Your task to perform on an android device: Empty the shopping cart on amazon.com. Add razer nari to the cart on amazon.com Image 0: 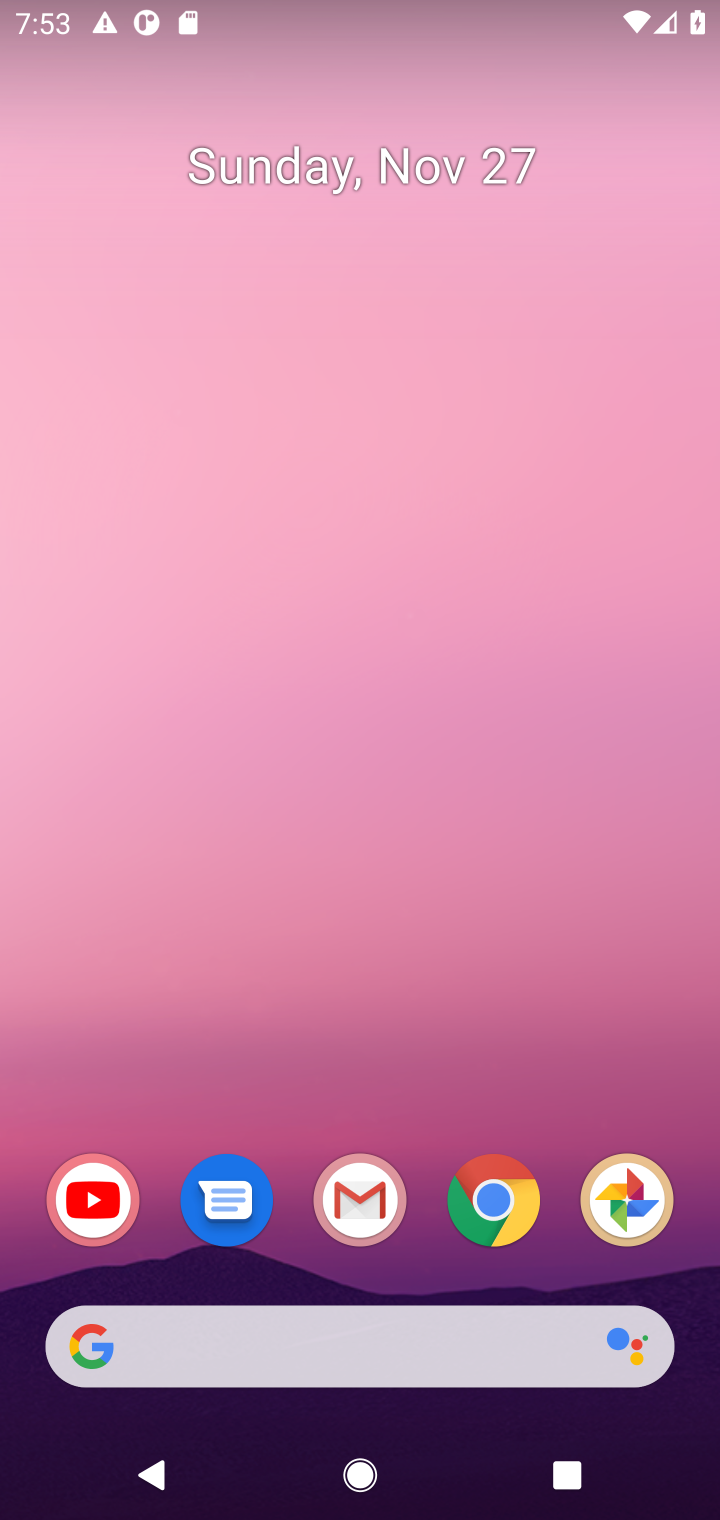
Step 0: click (500, 1222)
Your task to perform on an android device: Empty the shopping cart on amazon.com. Add razer nari to the cart on amazon.com Image 1: 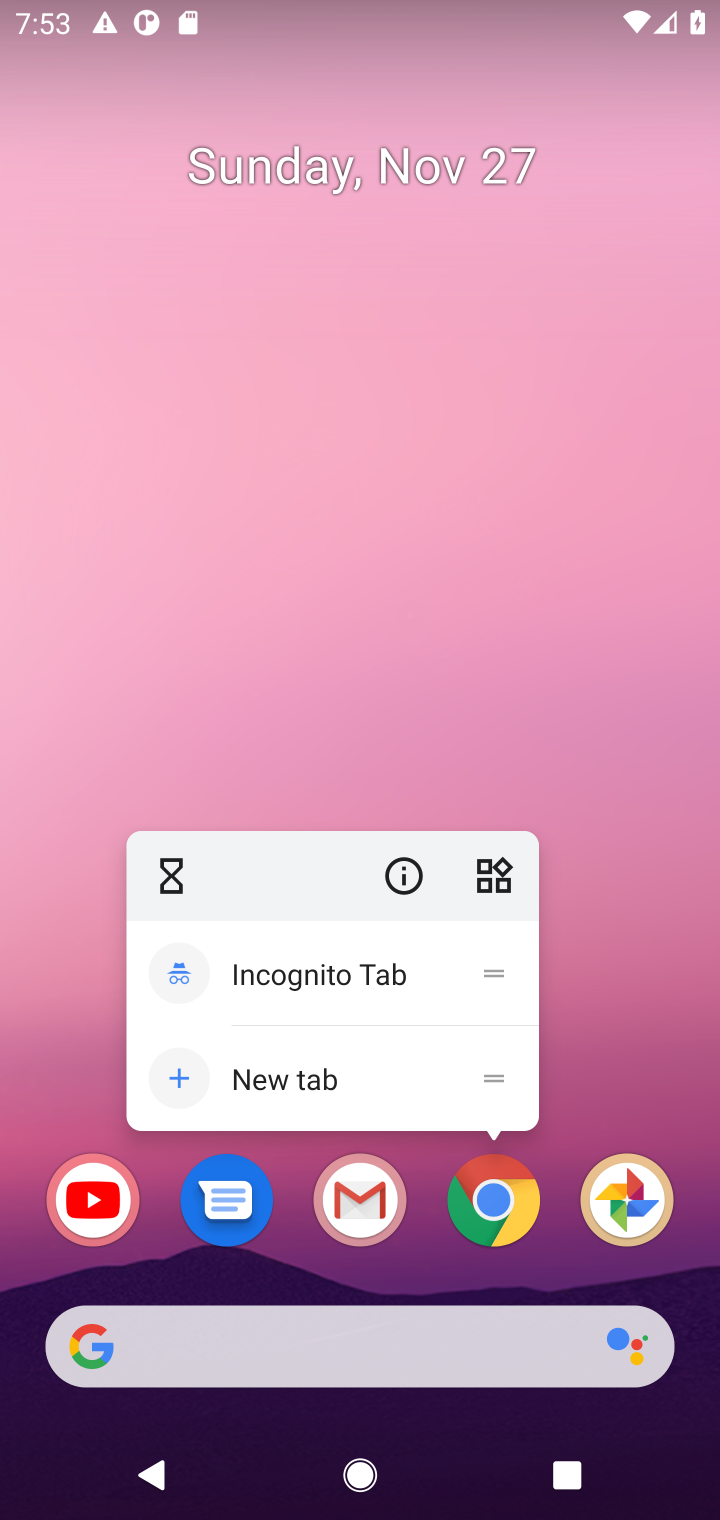
Step 1: click (499, 1205)
Your task to perform on an android device: Empty the shopping cart on amazon.com. Add razer nari to the cart on amazon.com Image 2: 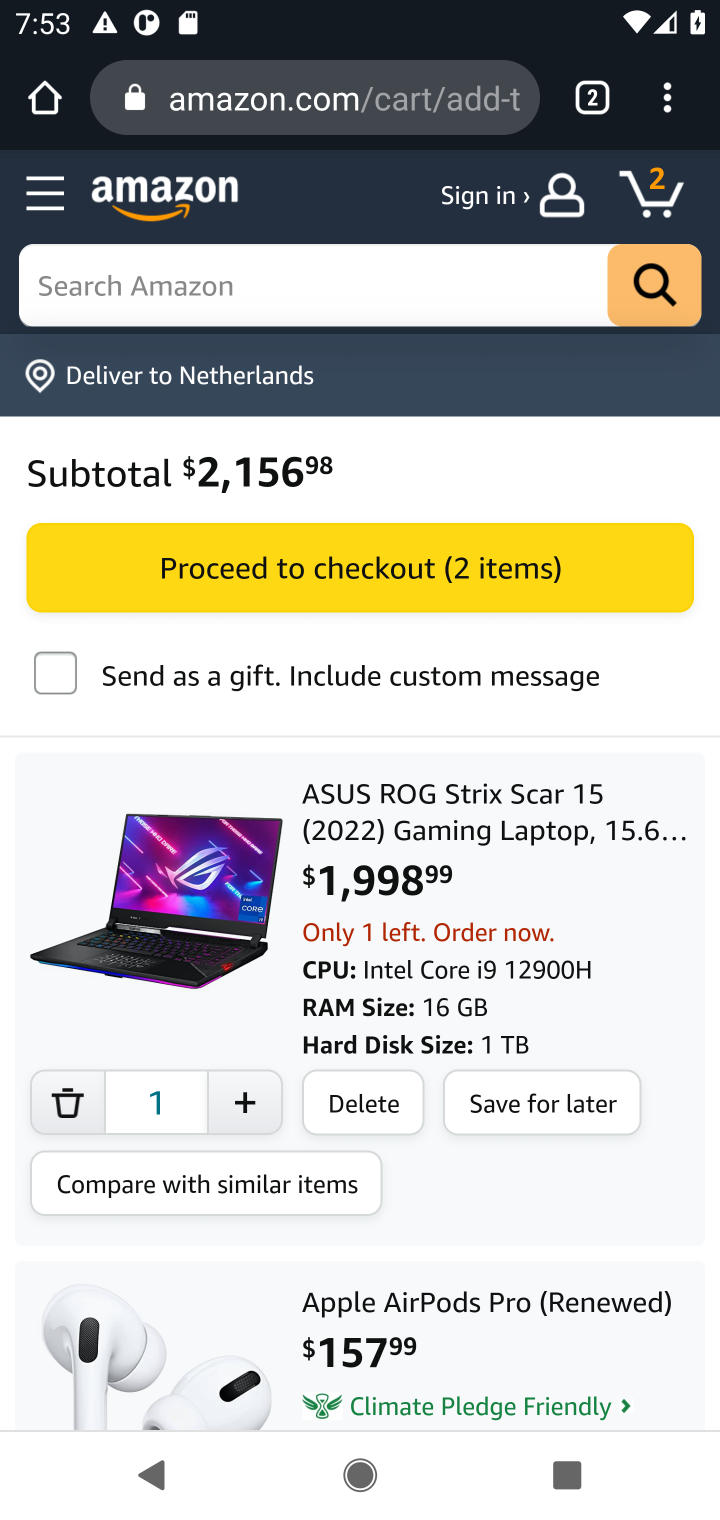
Step 2: click (340, 1091)
Your task to perform on an android device: Empty the shopping cart on amazon.com. Add razer nari to the cart on amazon.com Image 3: 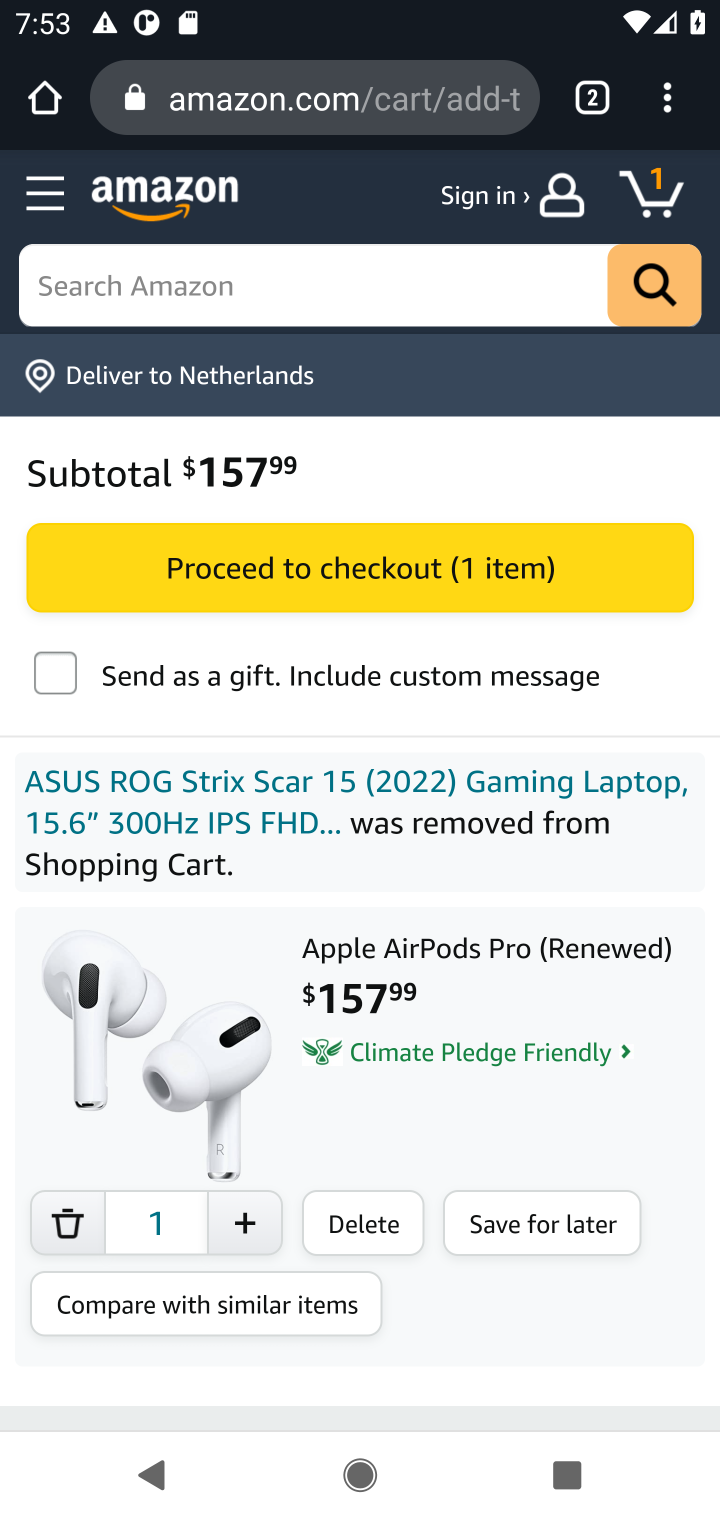
Step 3: click (345, 1225)
Your task to perform on an android device: Empty the shopping cart on amazon.com. Add razer nari to the cart on amazon.com Image 4: 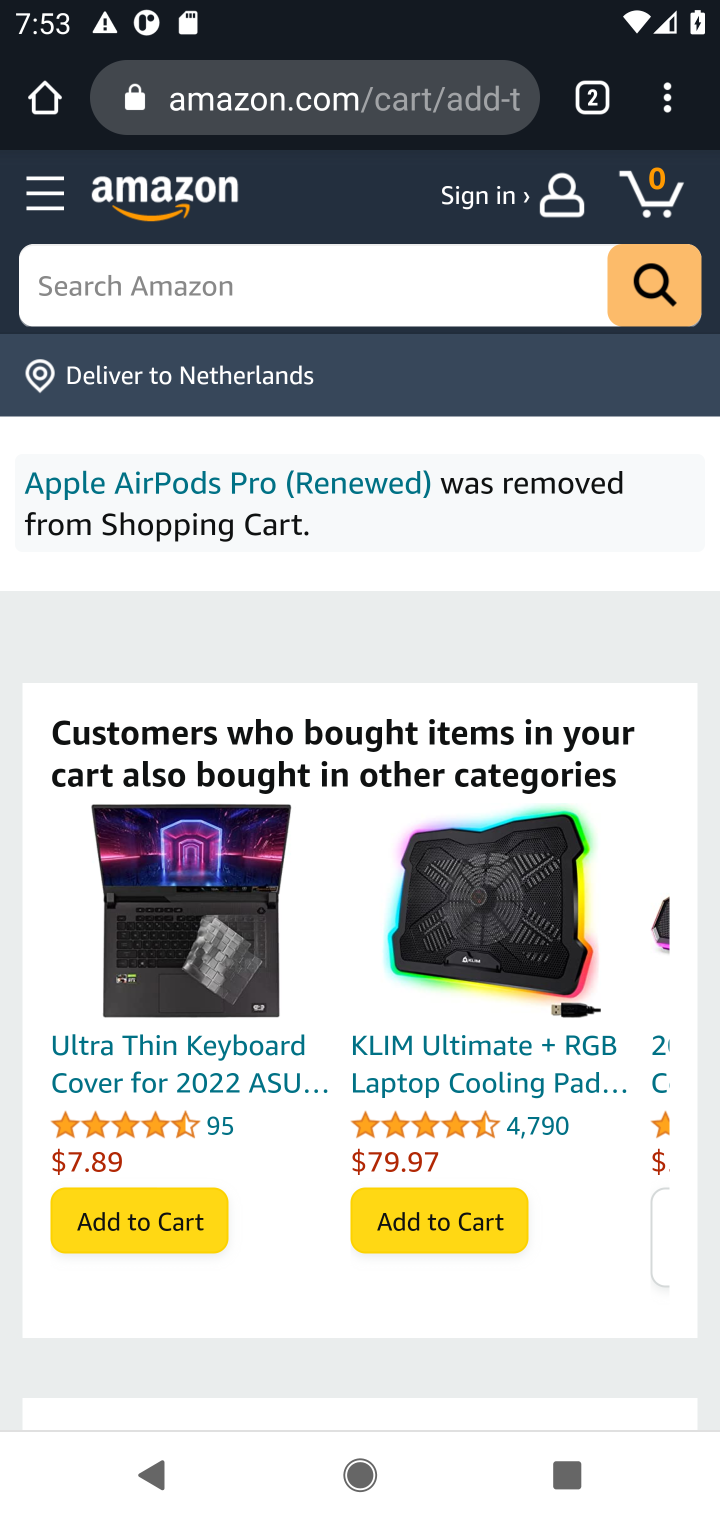
Step 4: click (219, 304)
Your task to perform on an android device: Empty the shopping cart on amazon.com. Add razer nari to the cart on amazon.com Image 5: 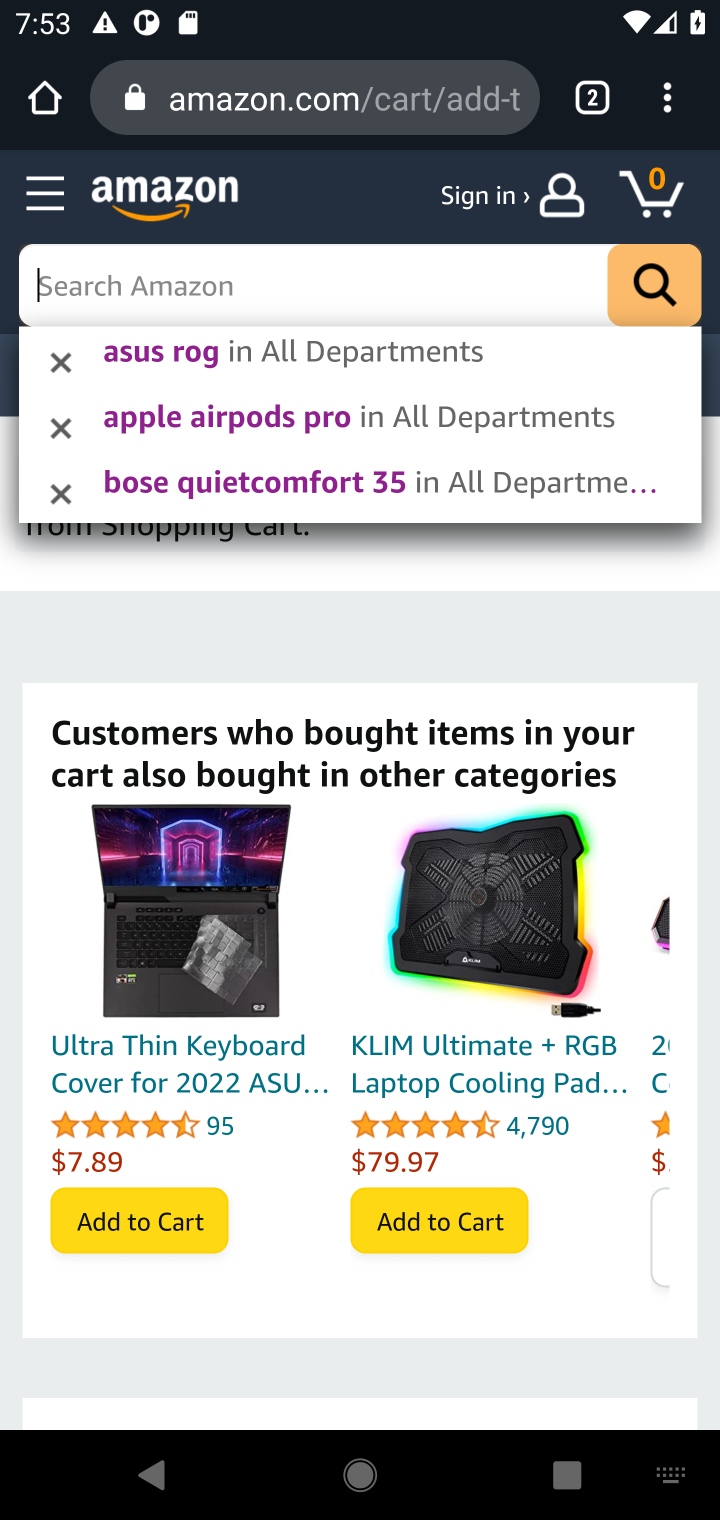
Step 5: type "razer nari"
Your task to perform on an android device: Empty the shopping cart on amazon.com. Add razer nari to the cart on amazon.com Image 6: 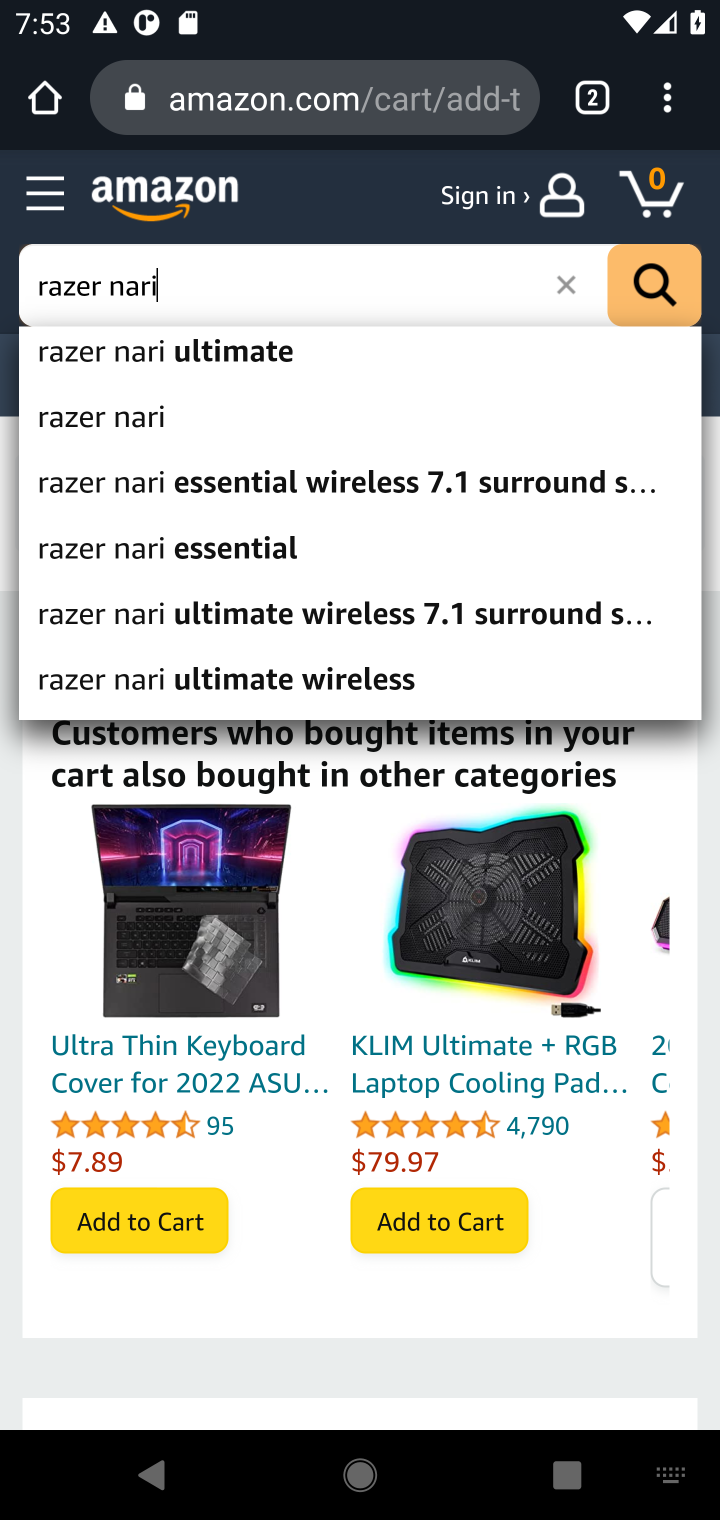
Step 6: click (142, 424)
Your task to perform on an android device: Empty the shopping cart on amazon.com. Add razer nari to the cart on amazon.com Image 7: 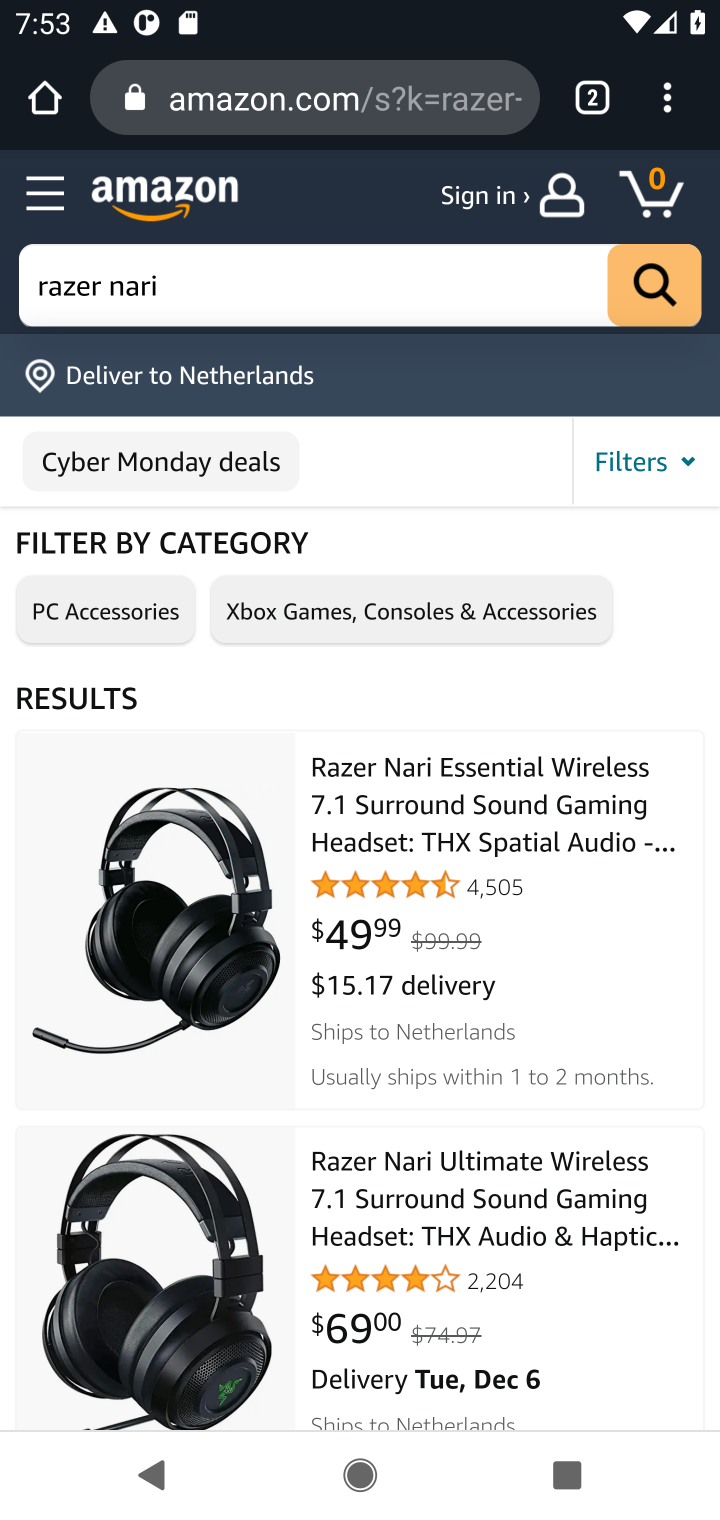
Step 7: click (411, 836)
Your task to perform on an android device: Empty the shopping cart on amazon.com. Add razer nari to the cart on amazon.com Image 8: 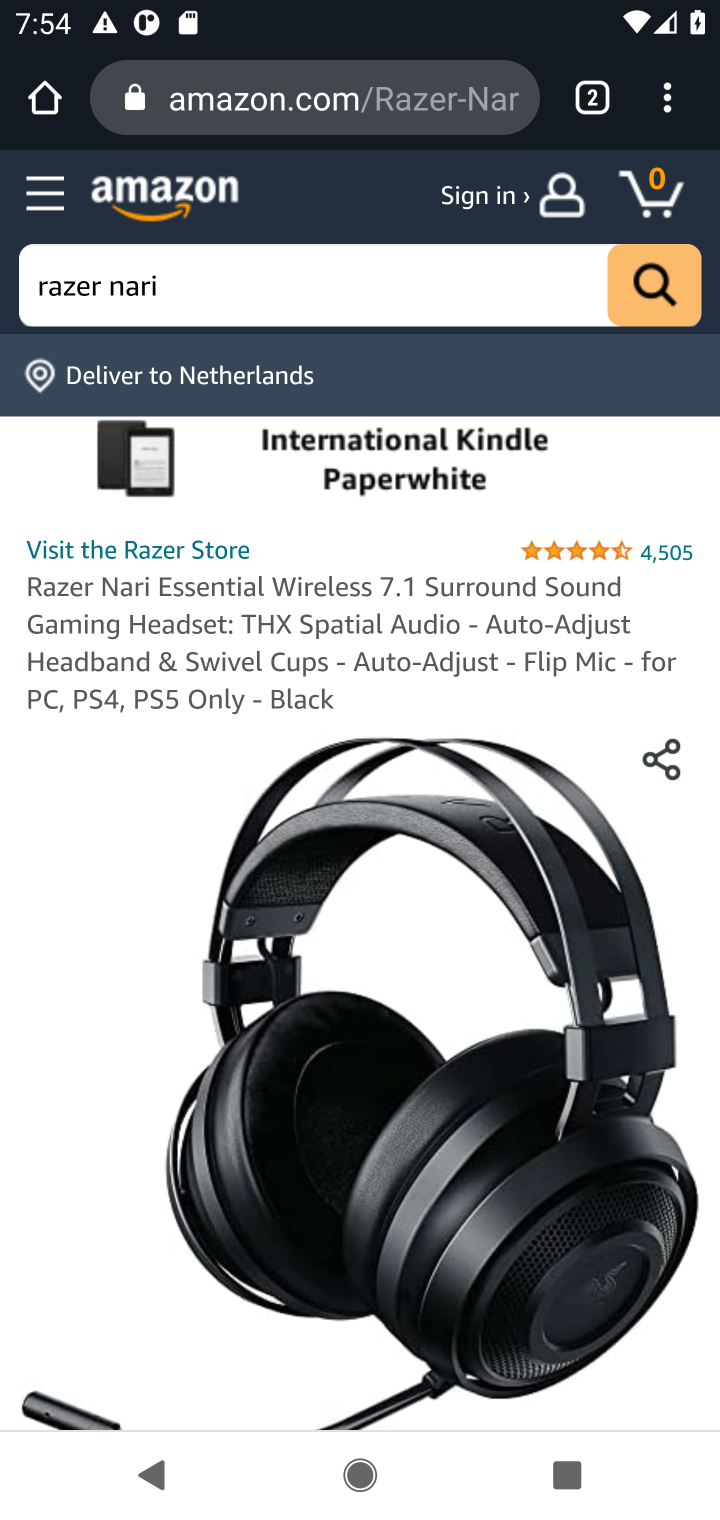
Step 8: drag from (331, 889) to (303, 475)
Your task to perform on an android device: Empty the shopping cart on amazon.com. Add razer nari to the cart on amazon.com Image 9: 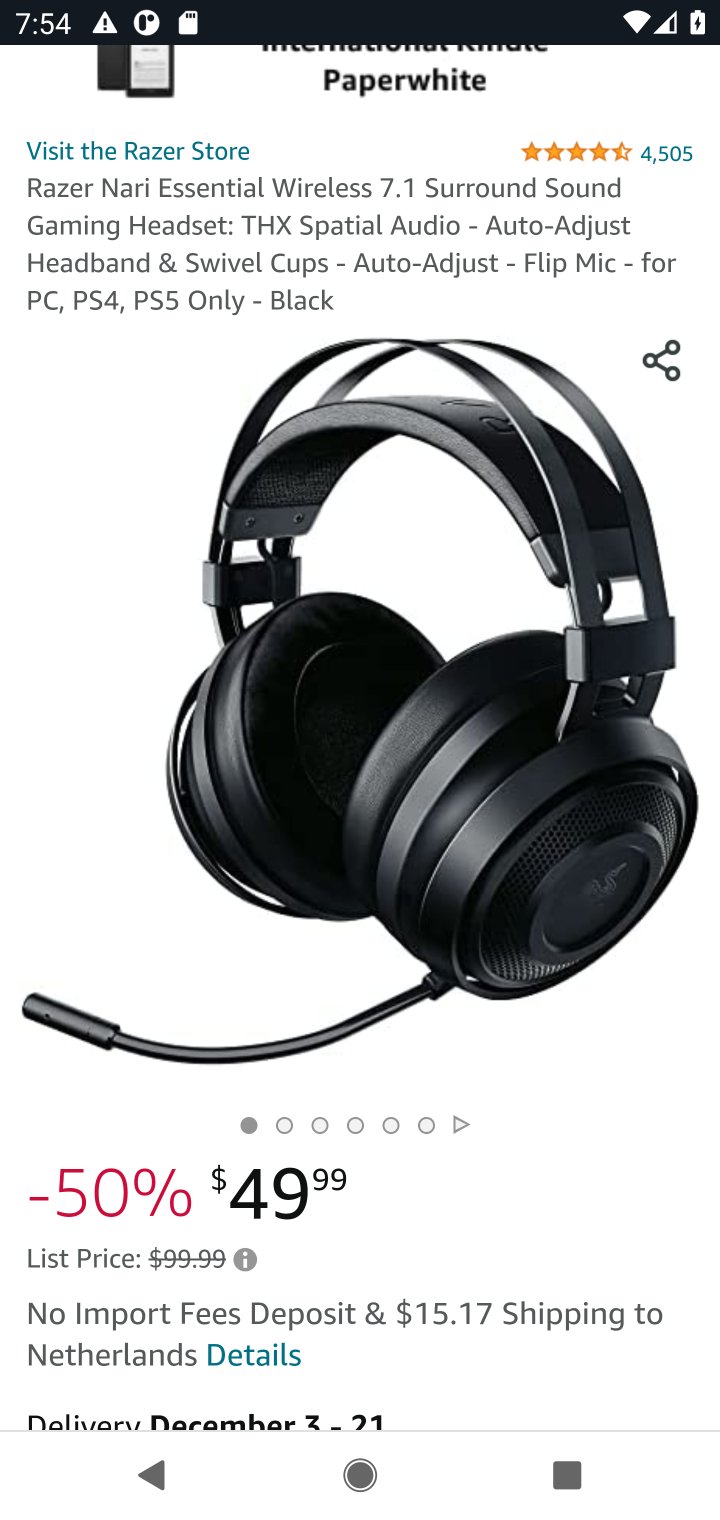
Step 9: drag from (353, 1054) to (314, 664)
Your task to perform on an android device: Empty the shopping cart on amazon.com. Add razer nari to the cart on amazon.com Image 10: 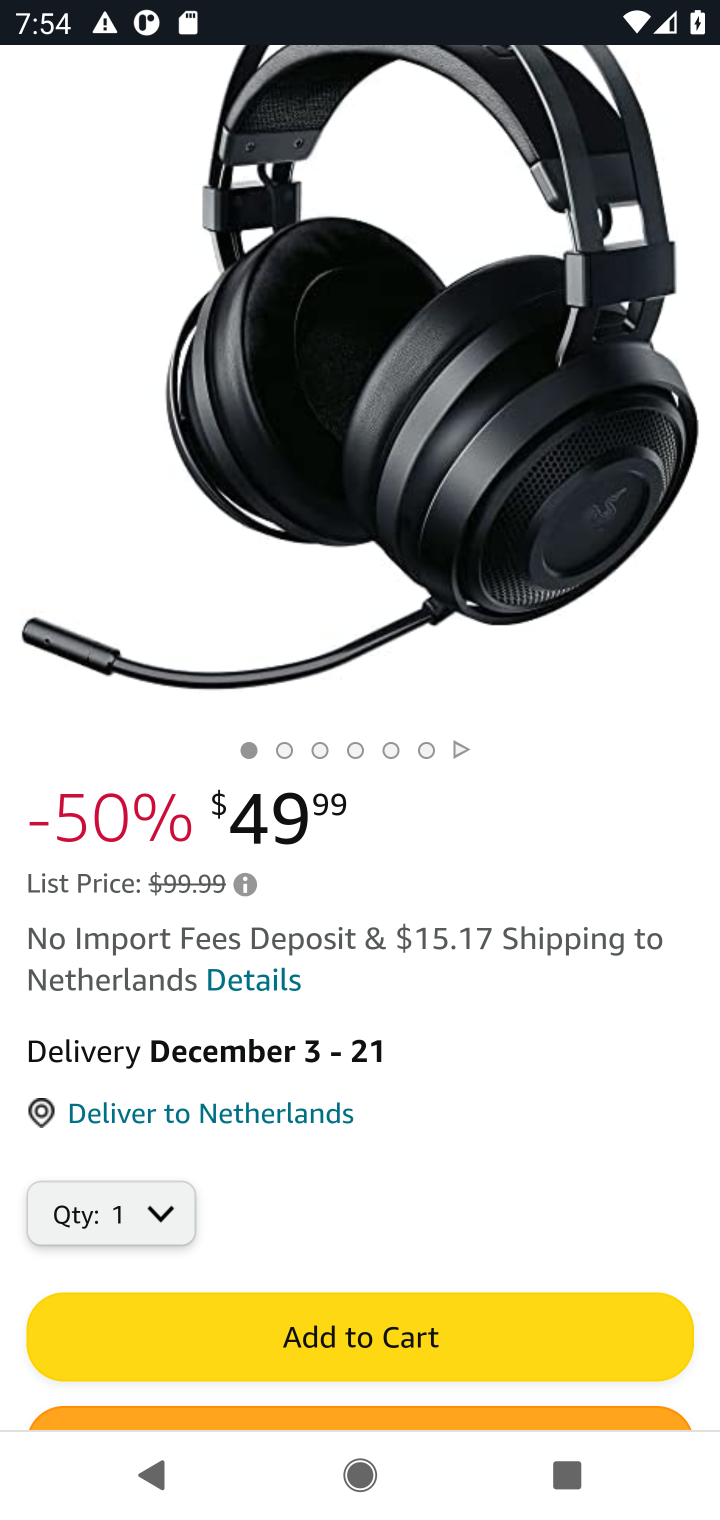
Step 10: click (322, 1335)
Your task to perform on an android device: Empty the shopping cart on amazon.com. Add razer nari to the cart on amazon.com Image 11: 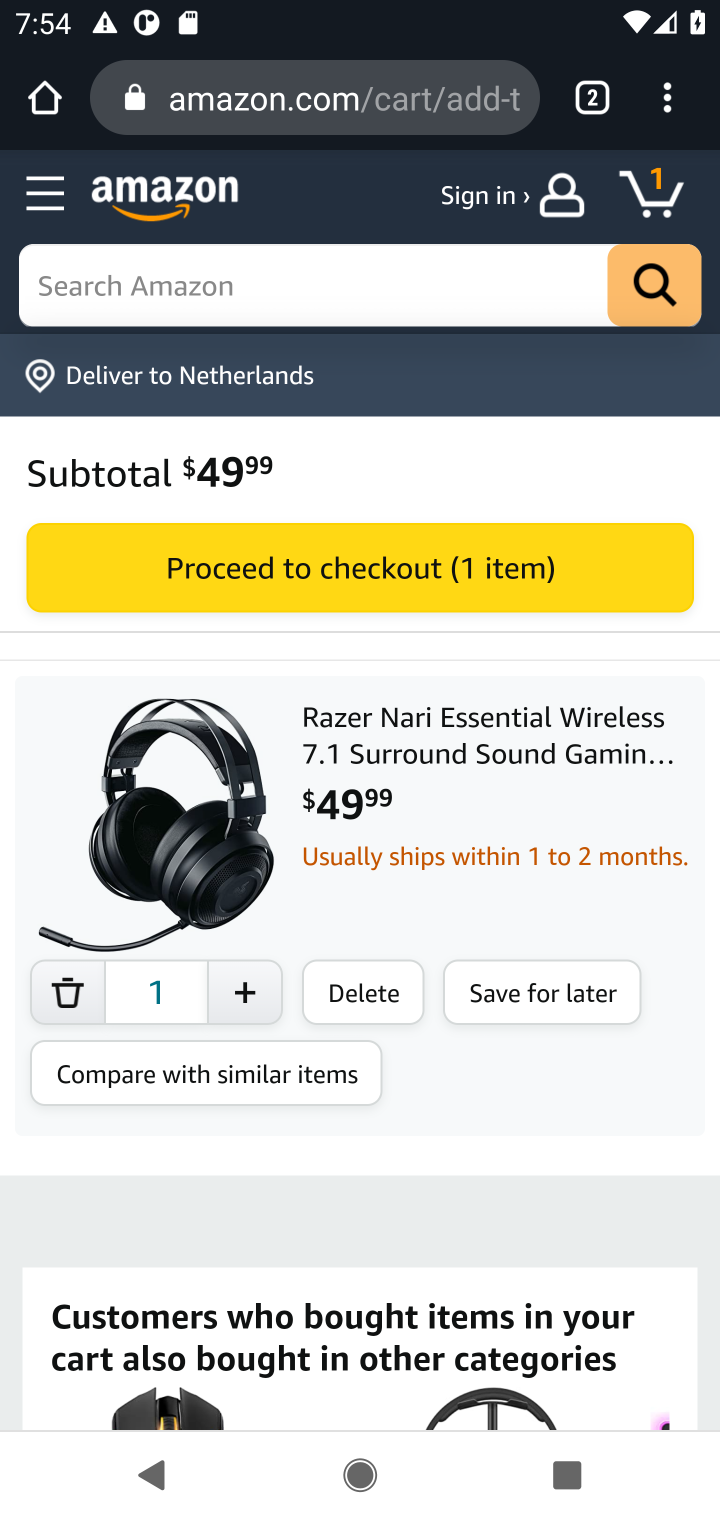
Step 11: task complete